Your task to perform on an android device: turn off translation in the chrome app Image 0: 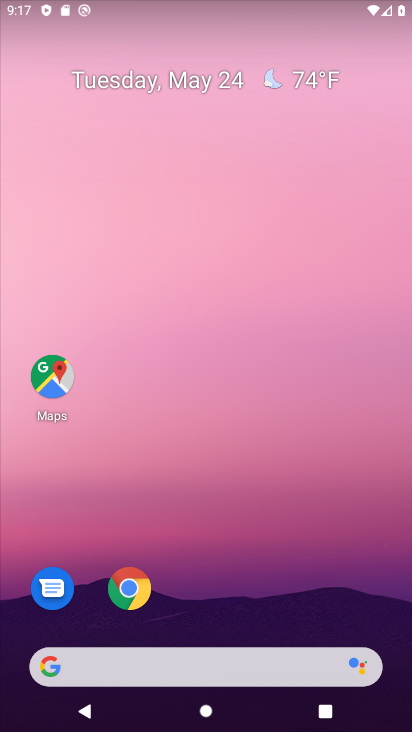
Step 0: click (131, 586)
Your task to perform on an android device: turn off translation in the chrome app Image 1: 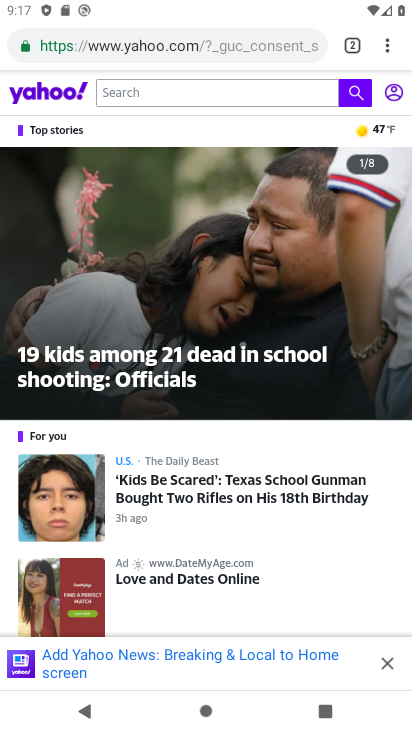
Step 1: click (395, 42)
Your task to perform on an android device: turn off translation in the chrome app Image 2: 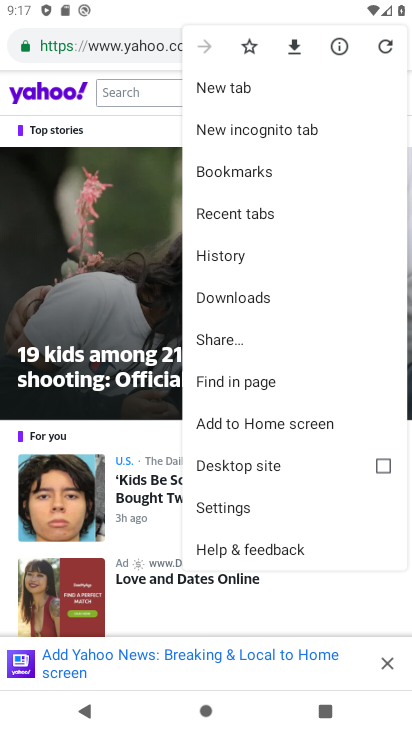
Step 2: click (228, 506)
Your task to perform on an android device: turn off translation in the chrome app Image 3: 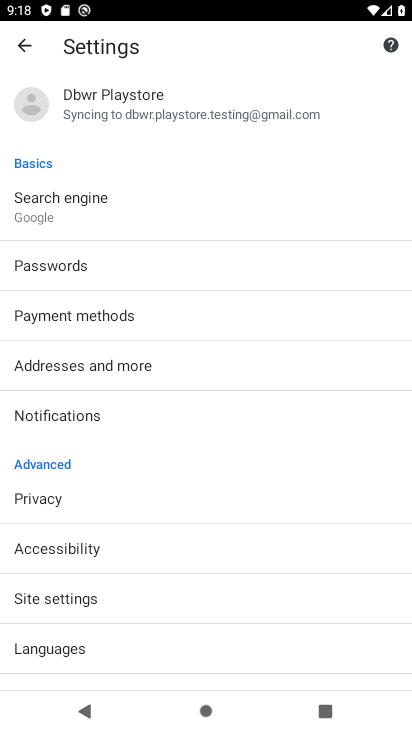
Step 3: click (134, 636)
Your task to perform on an android device: turn off translation in the chrome app Image 4: 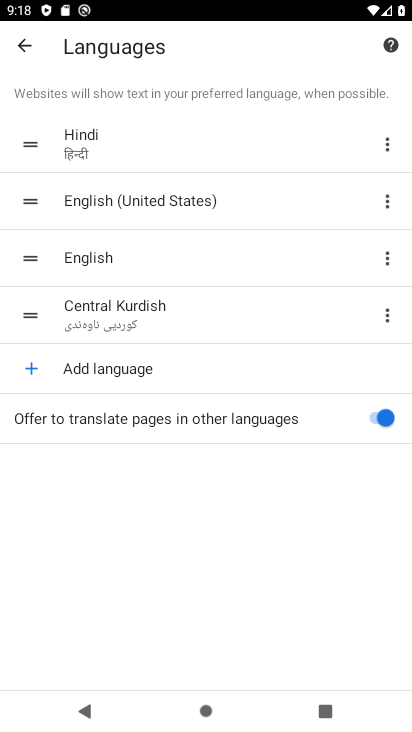
Step 4: click (386, 429)
Your task to perform on an android device: turn off translation in the chrome app Image 5: 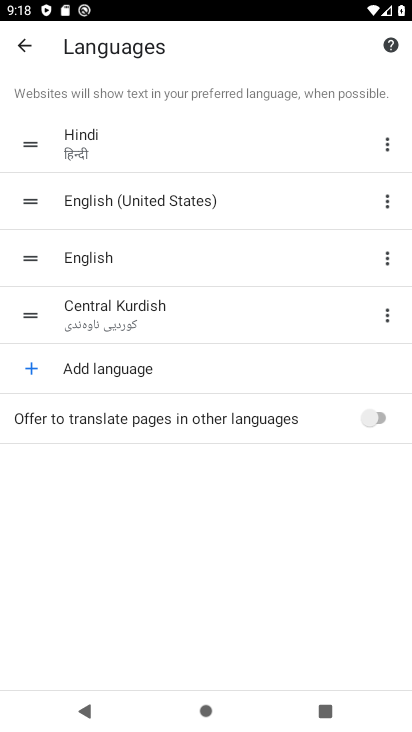
Step 5: task complete